Your task to perform on an android device: Go to accessibility settings Image 0: 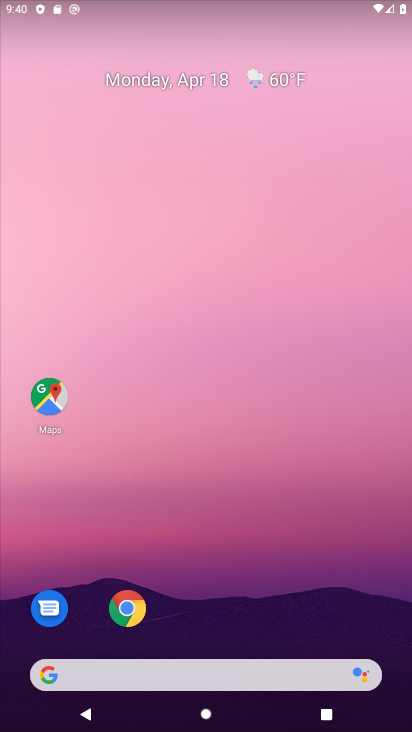
Step 0: drag from (290, 353) to (338, 0)
Your task to perform on an android device: Go to accessibility settings Image 1: 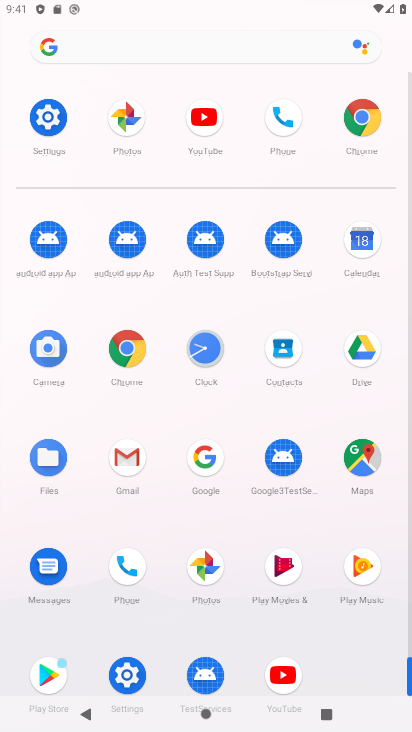
Step 1: drag from (156, 657) to (192, 275)
Your task to perform on an android device: Go to accessibility settings Image 2: 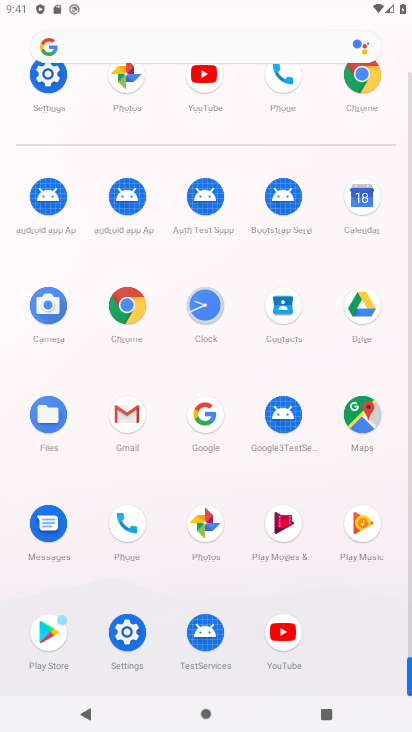
Step 2: click (125, 637)
Your task to perform on an android device: Go to accessibility settings Image 3: 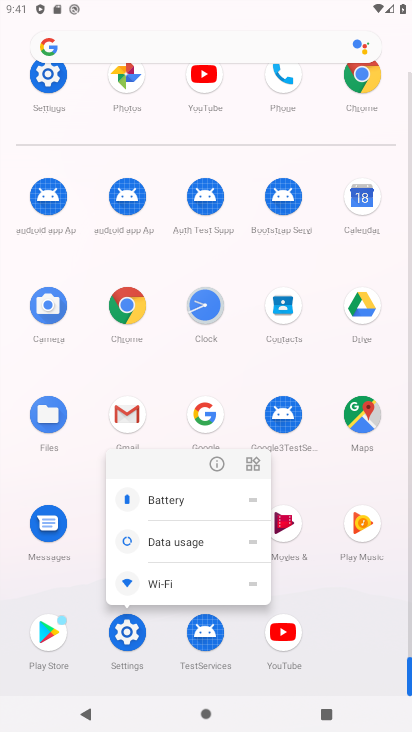
Step 3: click (211, 463)
Your task to perform on an android device: Go to accessibility settings Image 4: 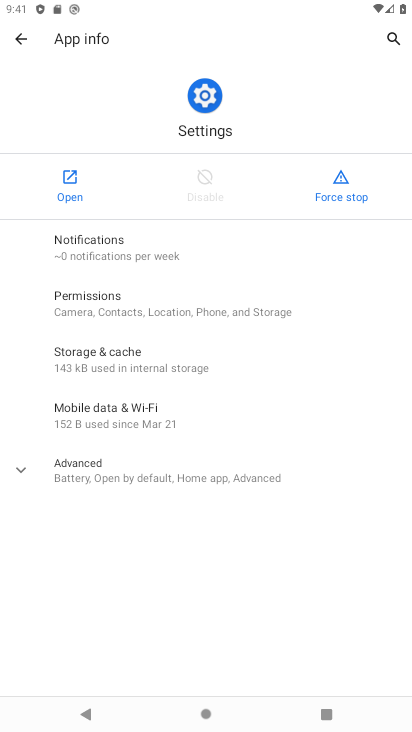
Step 4: click (81, 178)
Your task to perform on an android device: Go to accessibility settings Image 5: 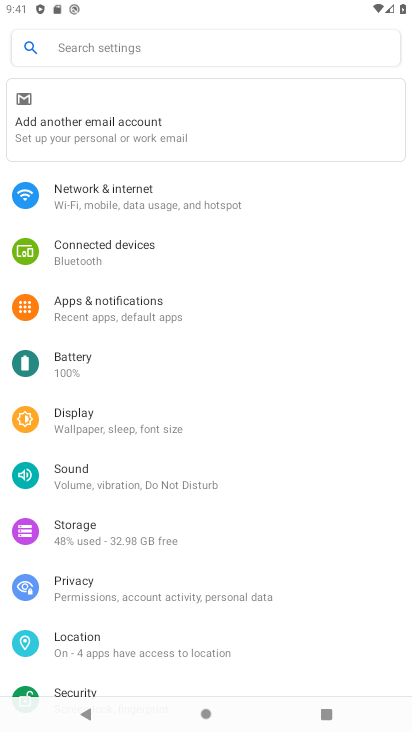
Step 5: drag from (127, 625) to (219, 340)
Your task to perform on an android device: Go to accessibility settings Image 6: 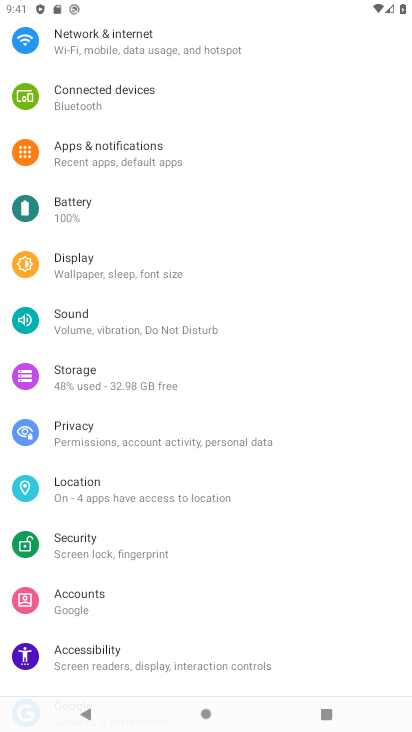
Step 6: click (121, 657)
Your task to perform on an android device: Go to accessibility settings Image 7: 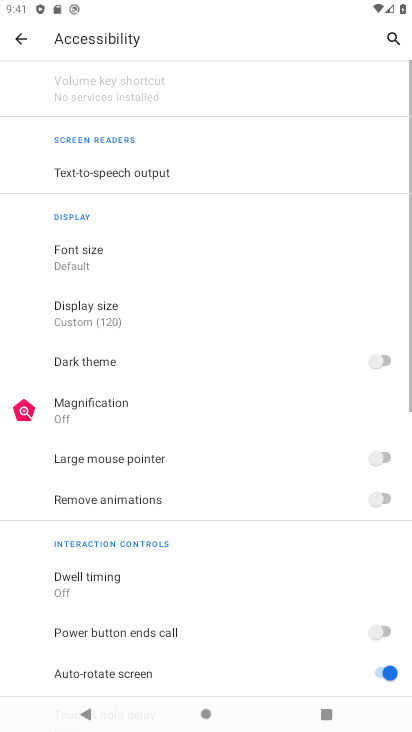
Step 7: task complete